Your task to perform on an android device: Open Android settings Image 0: 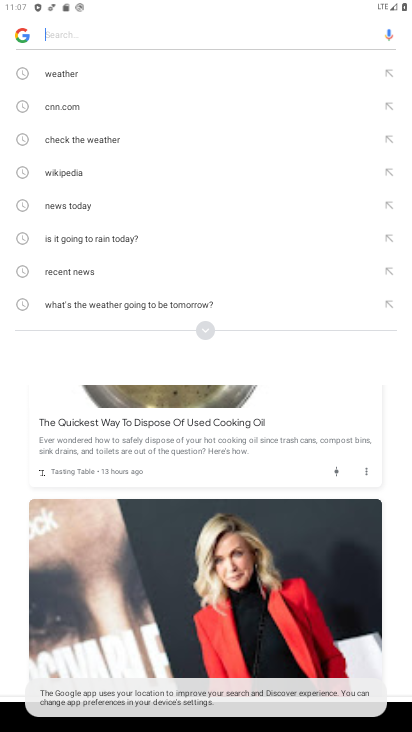
Step 0: press home button
Your task to perform on an android device: Open Android settings Image 1: 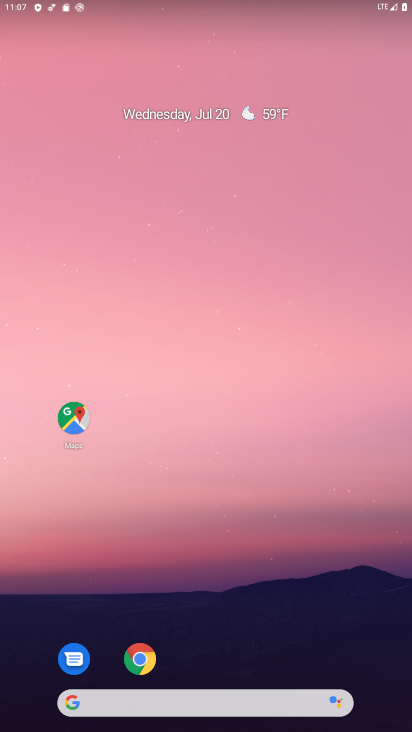
Step 1: drag from (233, 724) to (199, 154)
Your task to perform on an android device: Open Android settings Image 2: 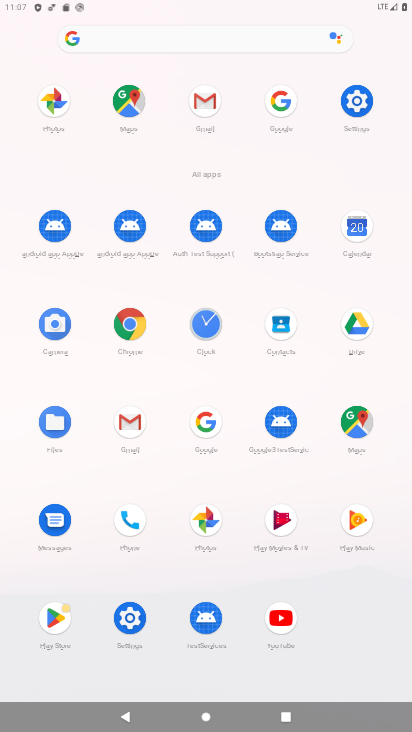
Step 2: click (133, 622)
Your task to perform on an android device: Open Android settings Image 3: 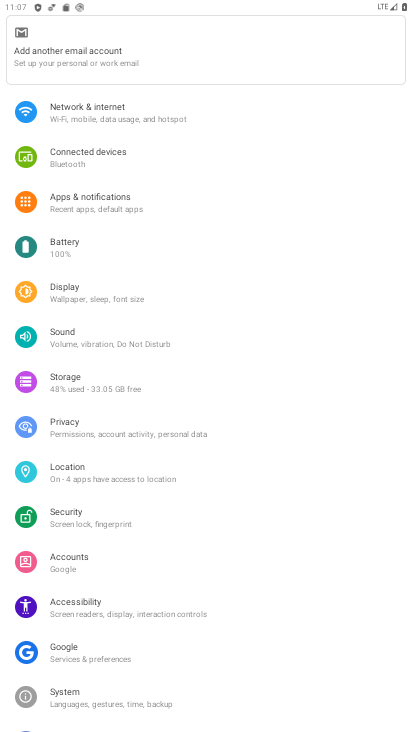
Step 3: task complete